Your task to perform on an android device: turn notification dots off Image 0: 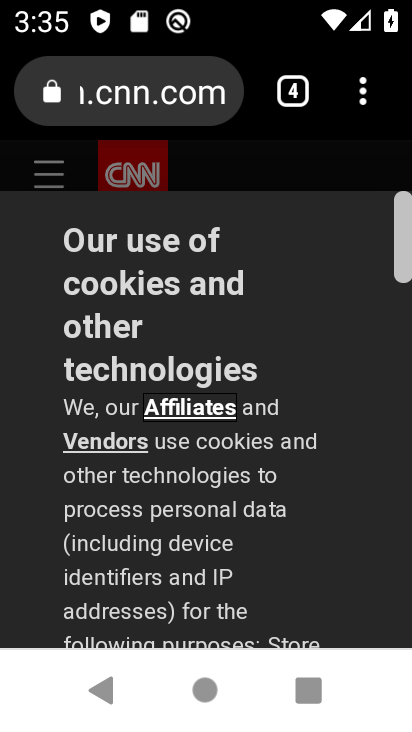
Step 0: press home button
Your task to perform on an android device: turn notification dots off Image 1: 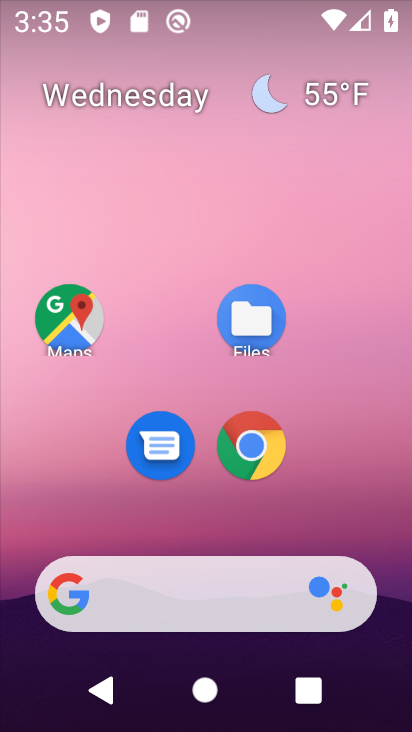
Step 1: drag from (349, 535) to (351, 120)
Your task to perform on an android device: turn notification dots off Image 2: 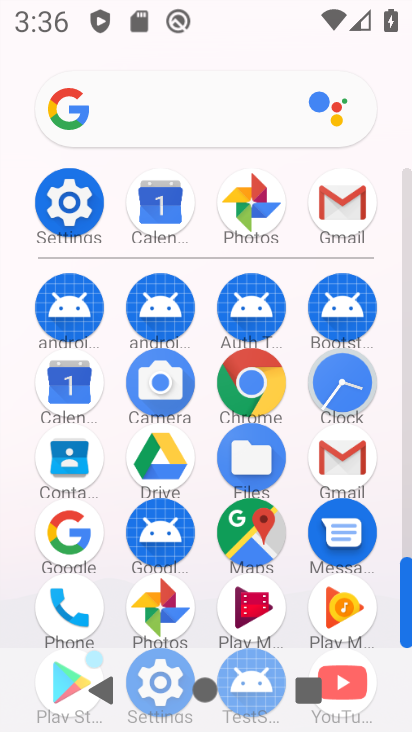
Step 2: click (66, 211)
Your task to perform on an android device: turn notification dots off Image 3: 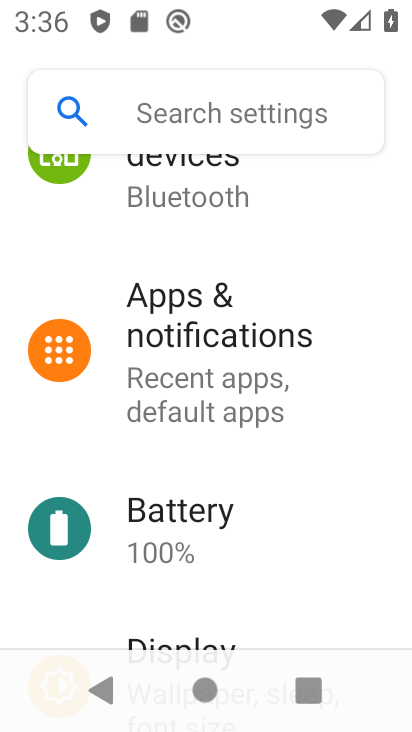
Step 3: click (161, 396)
Your task to perform on an android device: turn notification dots off Image 4: 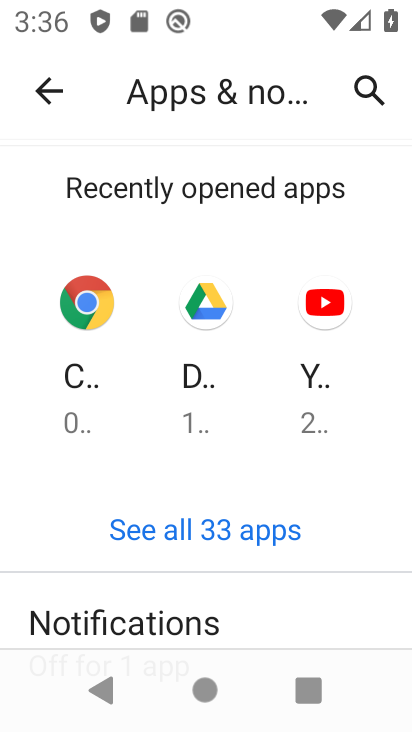
Step 4: click (131, 608)
Your task to perform on an android device: turn notification dots off Image 5: 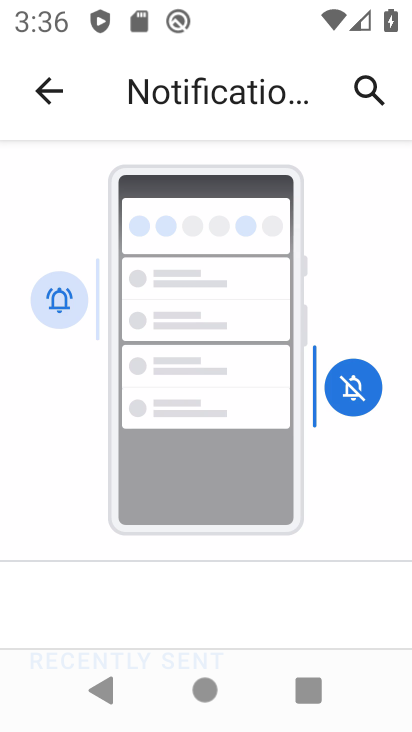
Step 5: drag from (134, 637) to (241, 127)
Your task to perform on an android device: turn notification dots off Image 6: 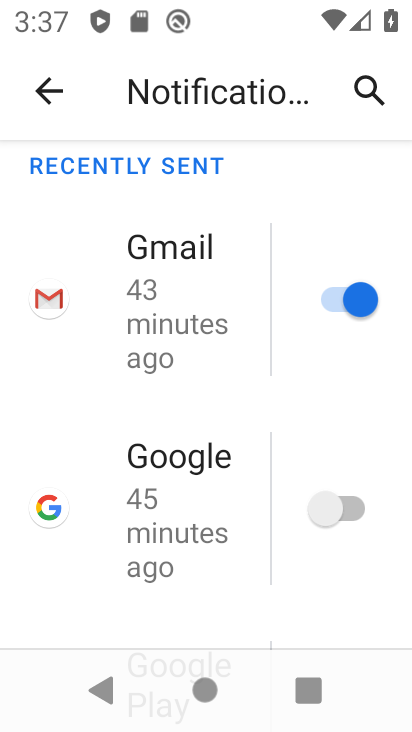
Step 6: drag from (219, 576) to (274, 60)
Your task to perform on an android device: turn notification dots off Image 7: 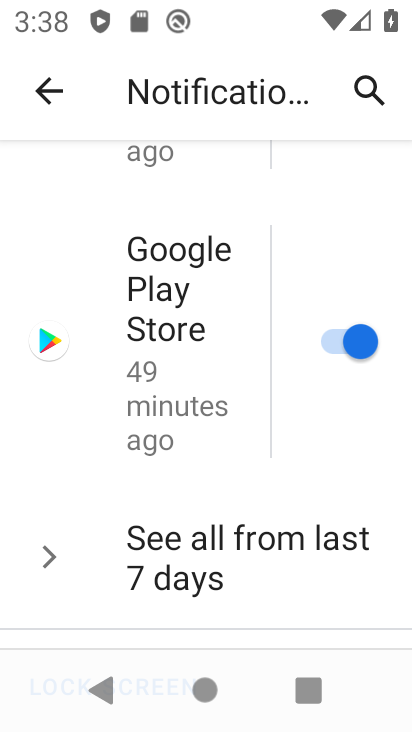
Step 7: drag from (166, 587) to (320, 10)
Your task to perform on an android device: turn notification dots off Image 8: 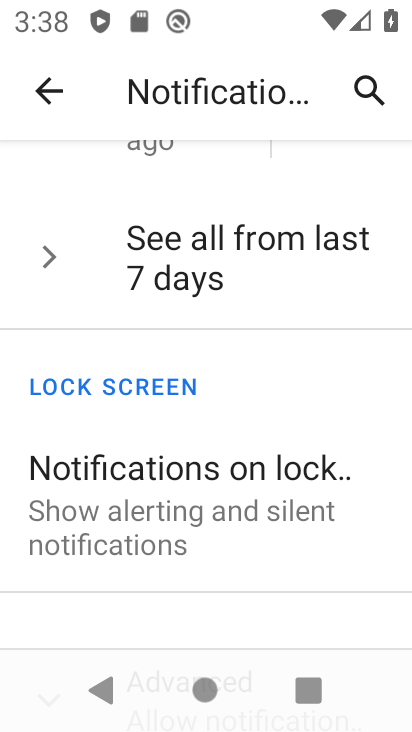
Step 8: drag from (214, 523) to (232, 2)
Your task to perform on an android device: turn notification dots off Image 9: 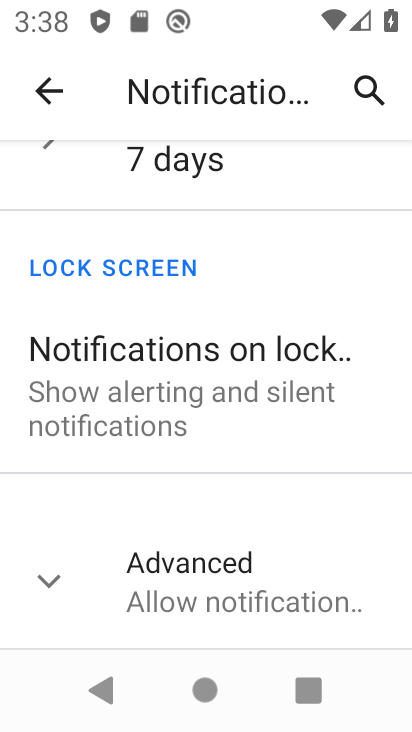
Step 9: click (188, 559)
Your task to perform on an android device: turn notification dots off Image 10: 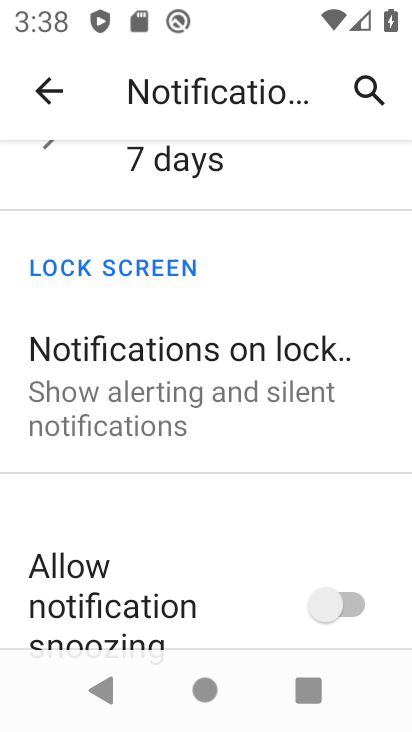
Step 10: drag from (185, 610) to (219, 146)
Your task to perform on an android device: turn notification dots off Image 11: 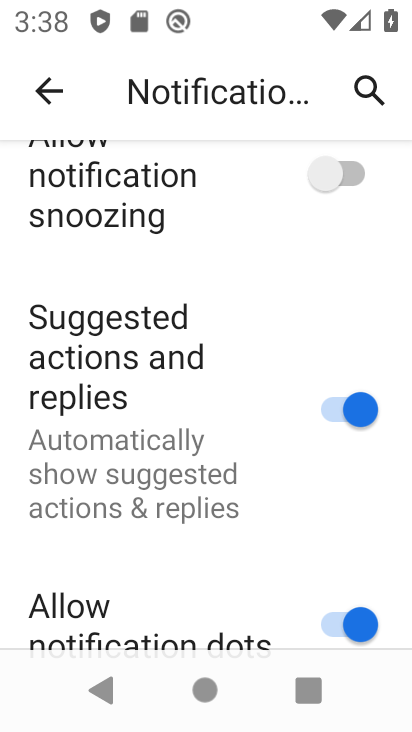
Step 11: click (371, 618)
Your task to perform on an android device: turn notification dots off Image 12: 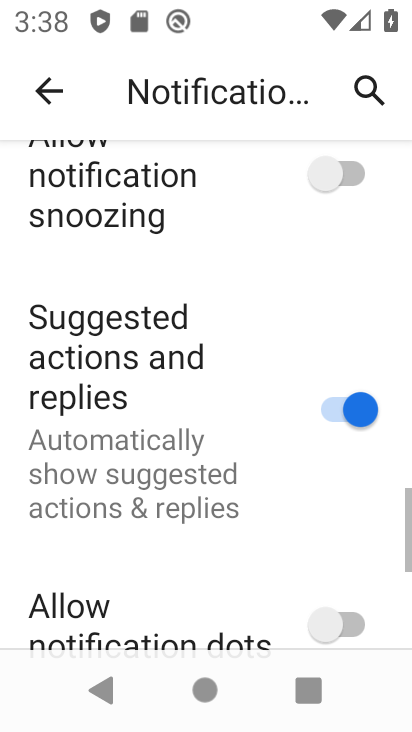
Step 12: task complete